Your task to perform on an android device: open a bookmark in the chrome app Image 0: 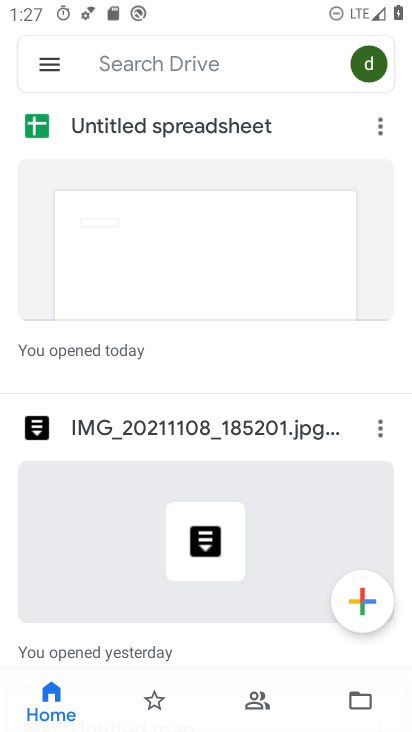
Step 0: press home button
Your task to perform on an android device: open a bookmark in the chrome app Image 1: 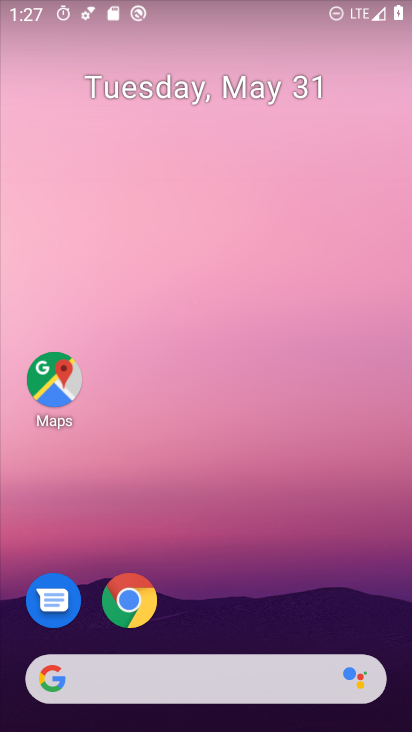
Step 1: click (124, 597)
Your task to perform on an android device: open a bookmark in the chrome app Image 2: 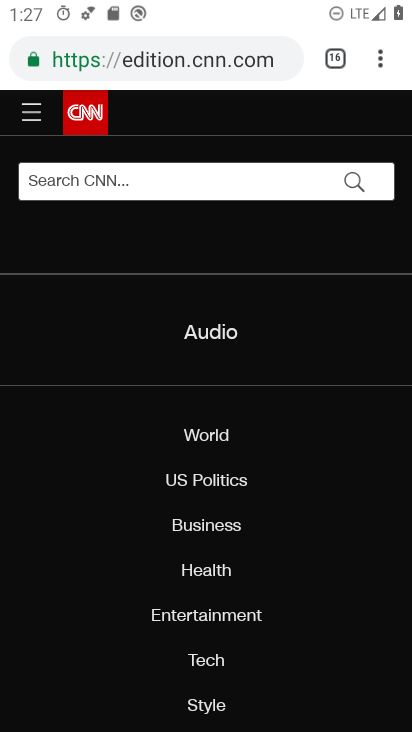
Step 2: click (382, 64)
Your task to perform on an android device: open a bookmark in the chrome app Image 3: 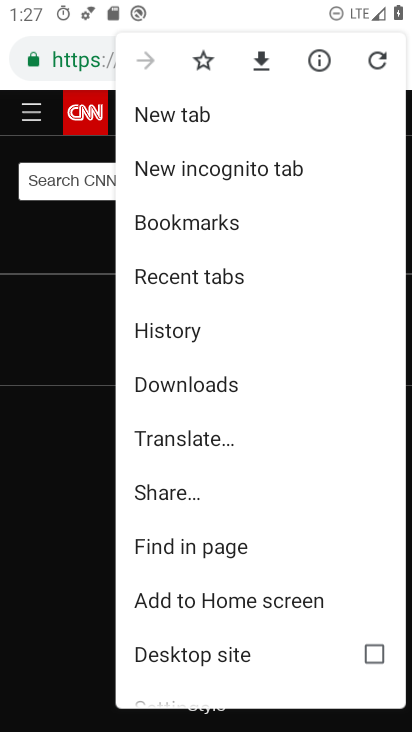
Step 3: click (215, 220)
Your task to perform on an android device: open a bookmark in the chrome app Image 4: 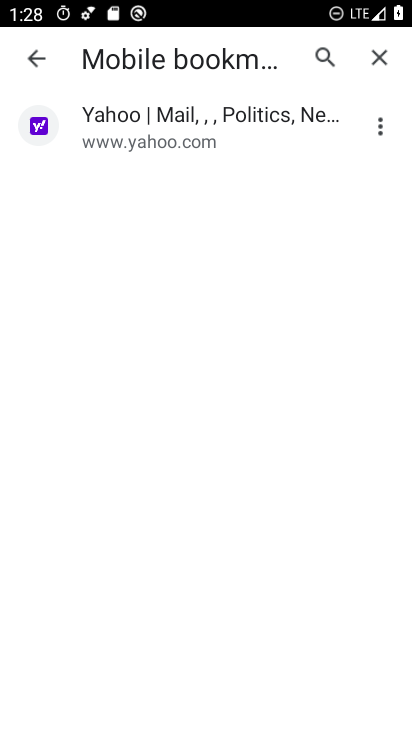
Step 4: click (187, 126)
Your task to perform on an android device: open a bookmark in the chrome app Image 5: 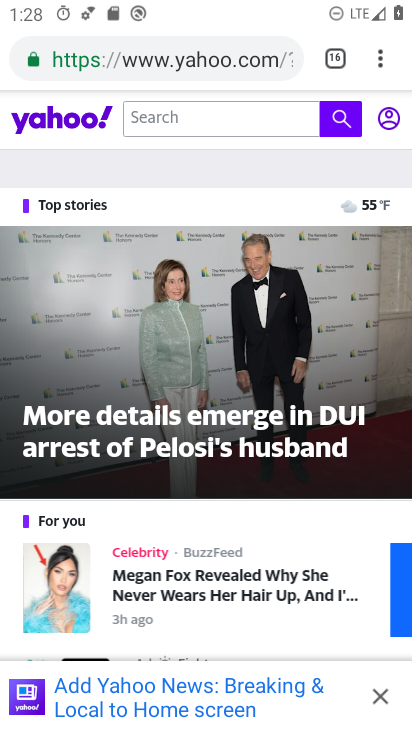
Step 5: task complete